Your task to perform on an android device: turn off sleep mode Image 0: 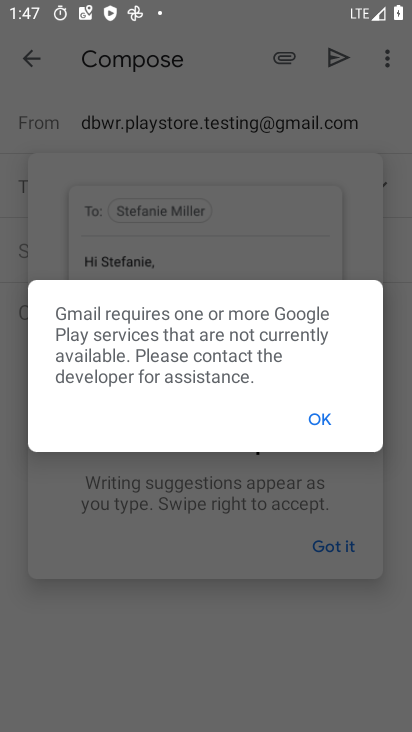
Step 0: press home button
Your task to perform on an android device: turn off sleep mode Image 1: 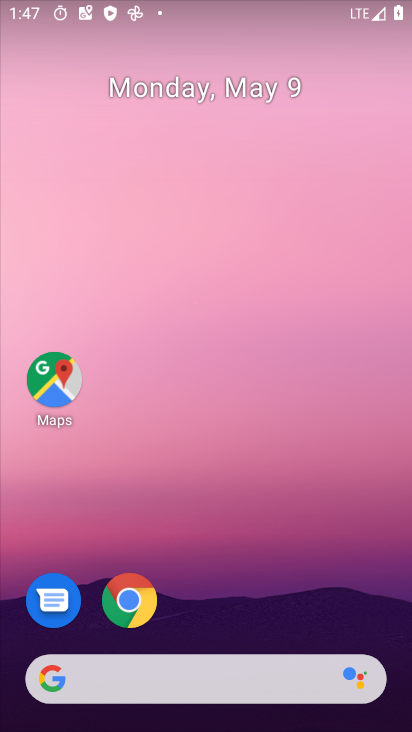
Step 1: drag from (250, 630) to (269, 279)
Your task to perform on an android device: turn off sleep mode Image 2: 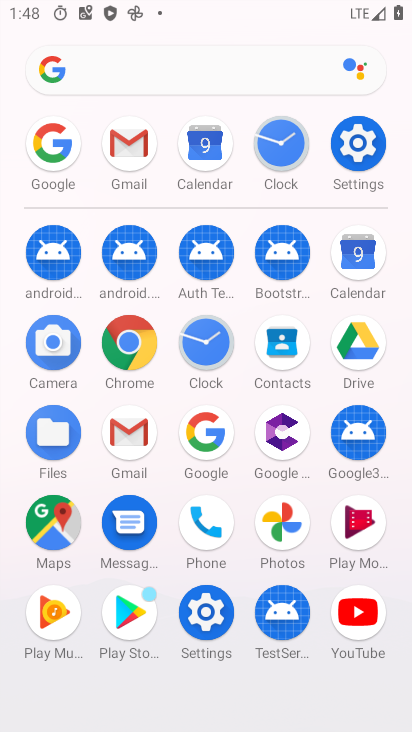
Step 2: click (360, 177)
Your task to perform on an android device: turn off sleep mode Image 3: 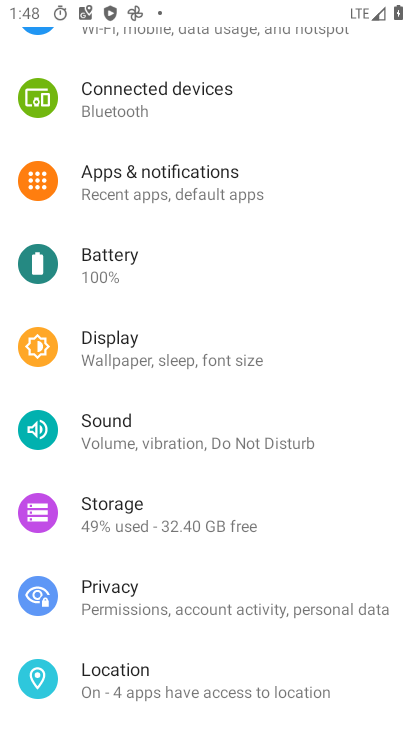
Step 3: task complete